Your task to perform on an android device: turn off notifications settings in the gmail app Image 0: 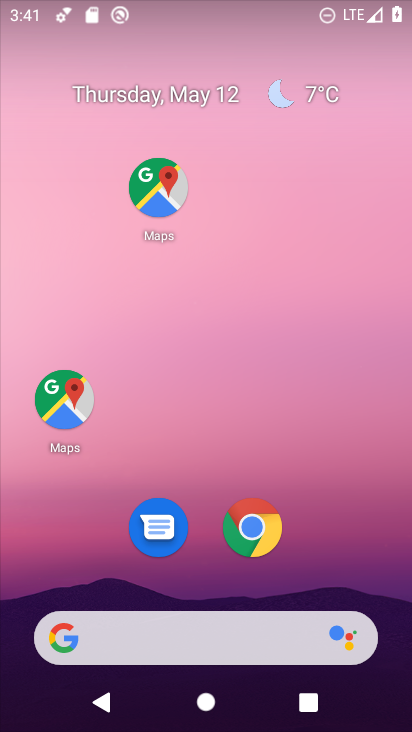
Step 0: drag from (212, 583) to (198, 4)
Your task to perform on an android device: turn off notifications settings in the gmail app Image 1: 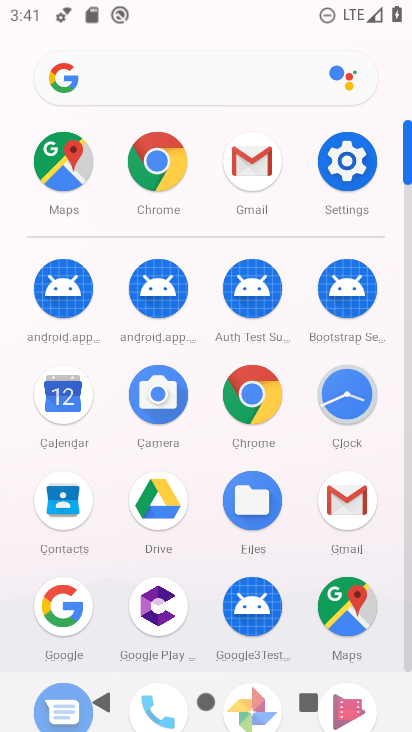
Step 1: click (343, 485)
Your task to perform on an android device: turn off notifications settings in the gmail app Image 2: 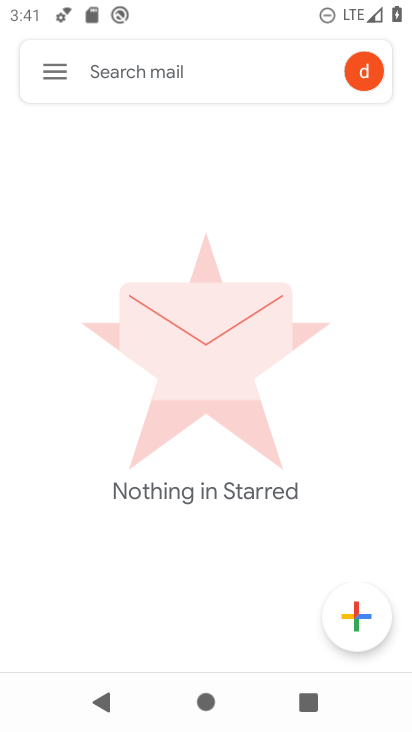
Step 2: click (49, 69)
Your task to perform on an android device: turn off notifications settings in the gmail app Image 3: 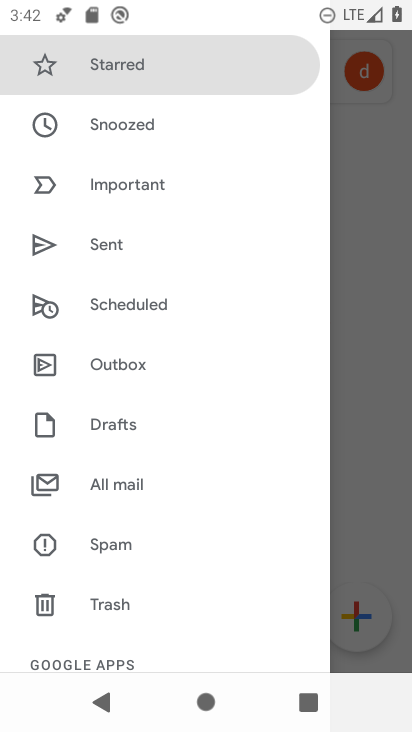
Step 3: drag from (224, 551) to (210, 110)
Your task to perform on an android device: turn off notifications settings in the gmail app Image 4: 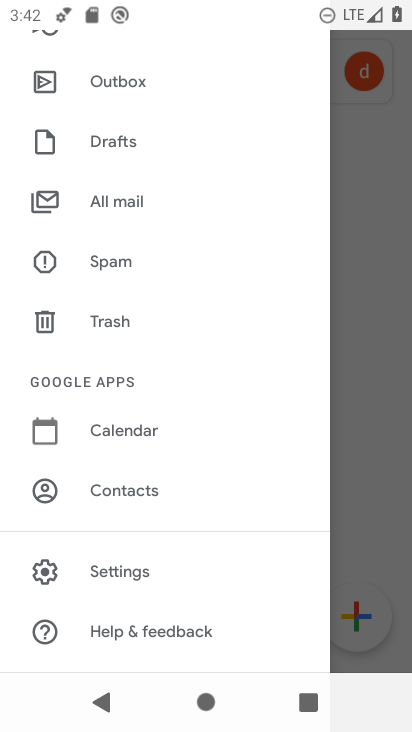
Step 4: click (132, 572)
Your task to perform on an android device: turn off notifications settings in the gmail app Image 5: 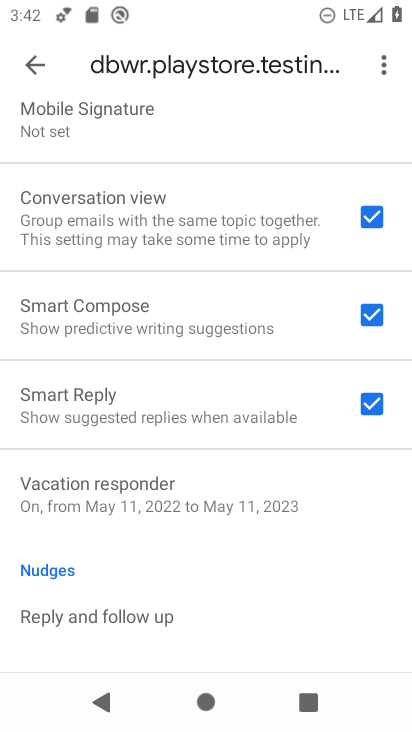
Step 5: drag from (135, 312) to (161, 731)
Your task to perform on an android device: turn off notifications settings in the gmail app Image 6: 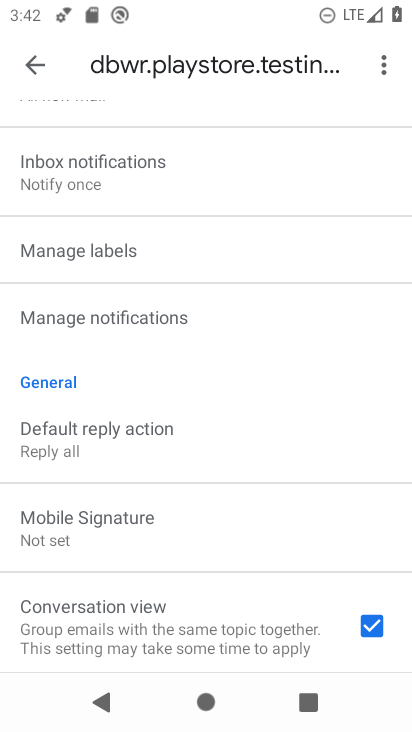
Step 6: click (28, 64)
Your task to perform on an android device: turn off notifications settings in the gmail app Image 7: 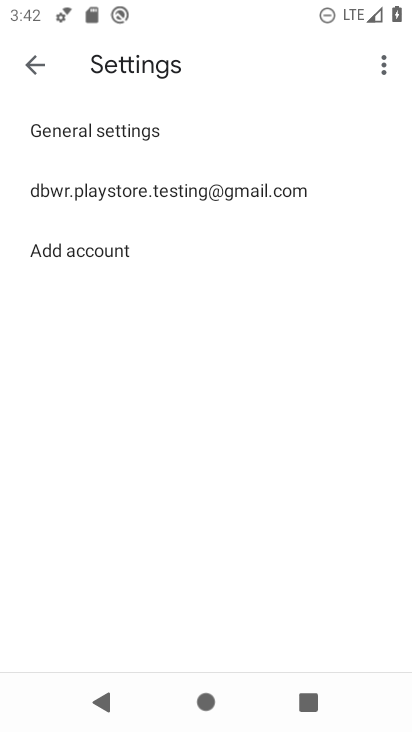
Step 7: click (60, 124)
Your task to perform on an android device: turn off notifications settings in the gmail app Image 8: 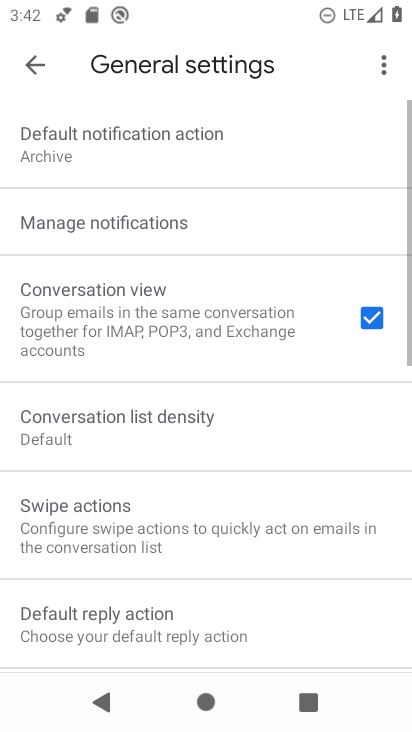
Step 8: click (82, 225)
Your task to perform on an android device: turn off notifications settings in the gmail app Image 9: 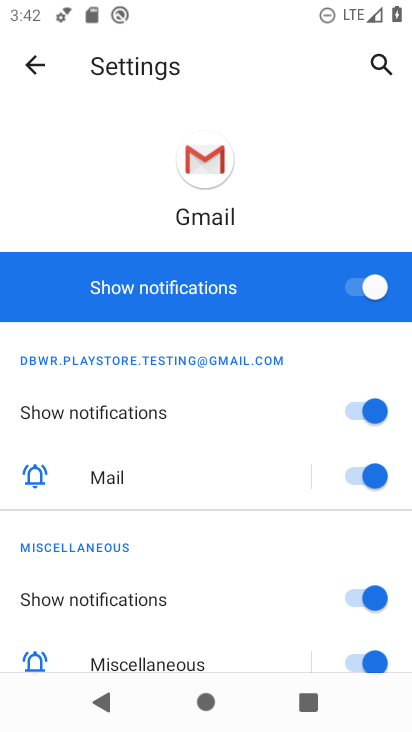
Step 9: click (367, 281)
Your task to perform on an android device: turn off notifications settings in the gmail app Image 10: 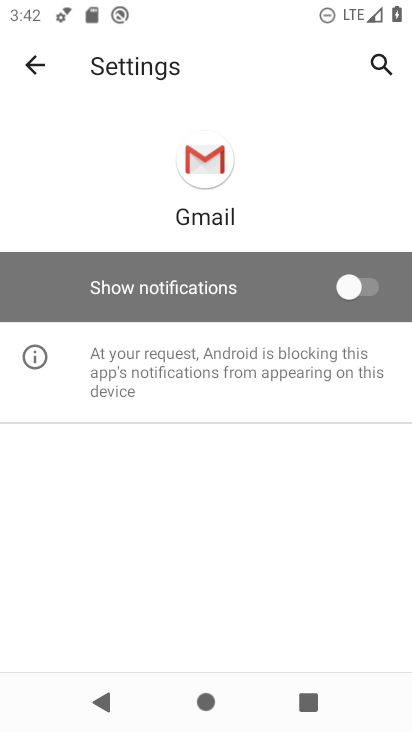
Step 10: task complete